Your task to perform on an android device: uninstall "Grab" Image 0: 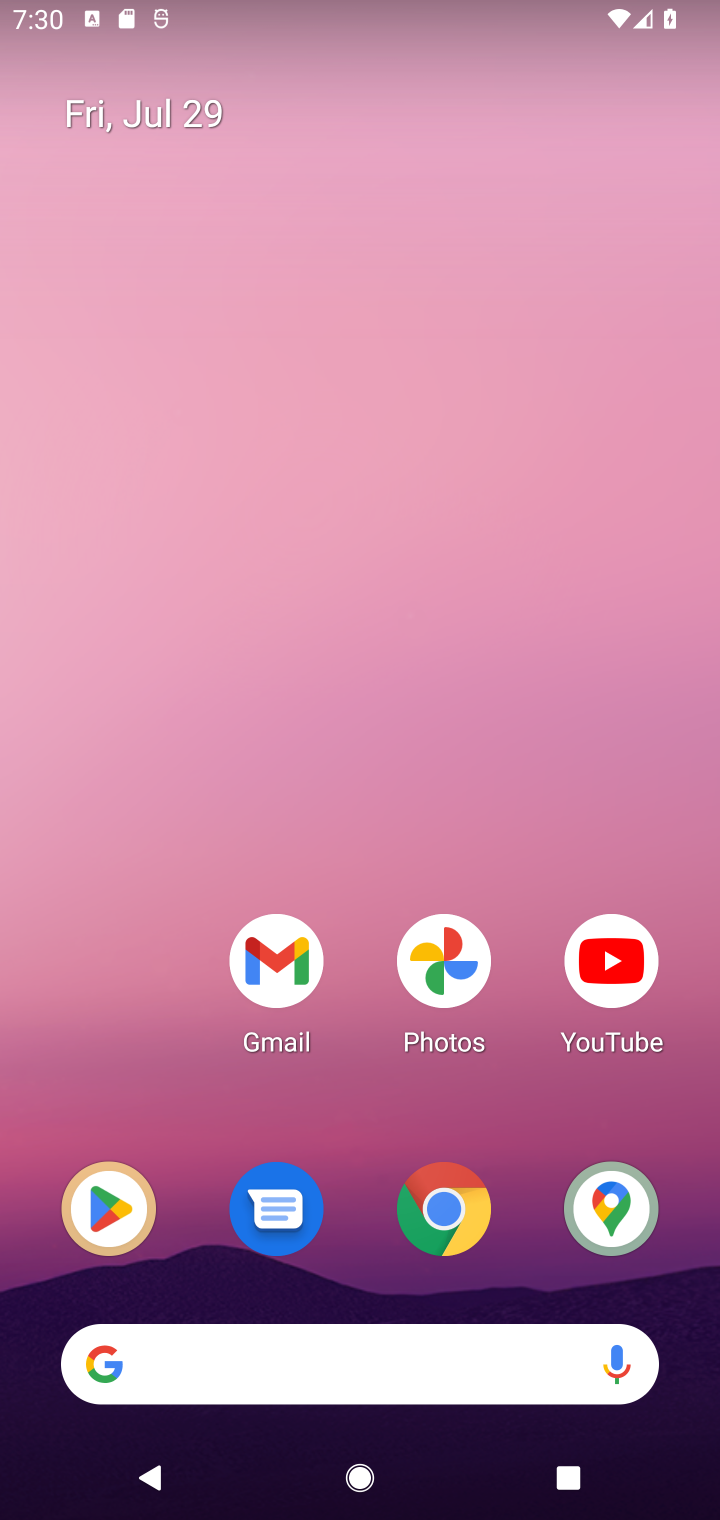
Step 0: click (109, 1227)
Your task to perform on an android device: uninstall "Grab" Image 1: 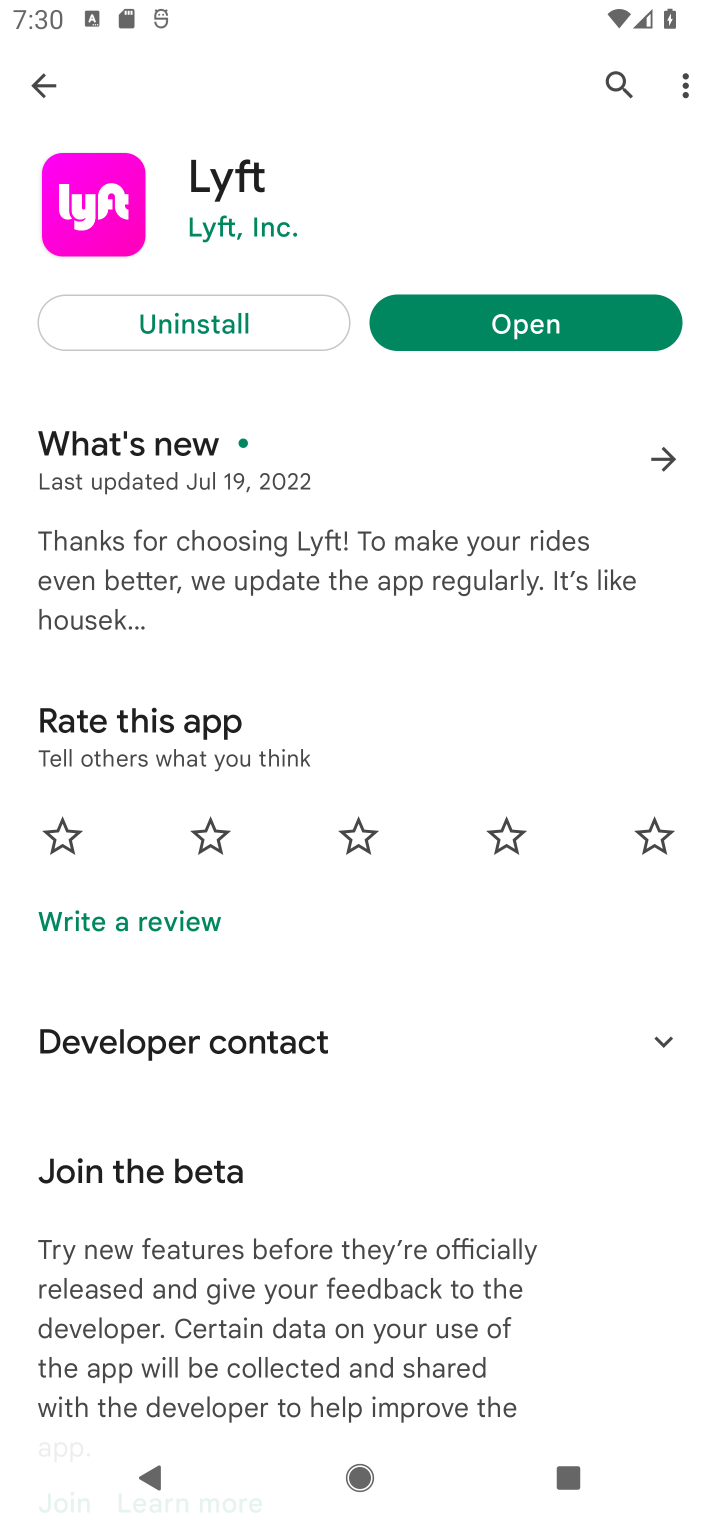
Step 1: click (625, 82)
Your task to perform on an android device: uninstall "Grab" Image 2: 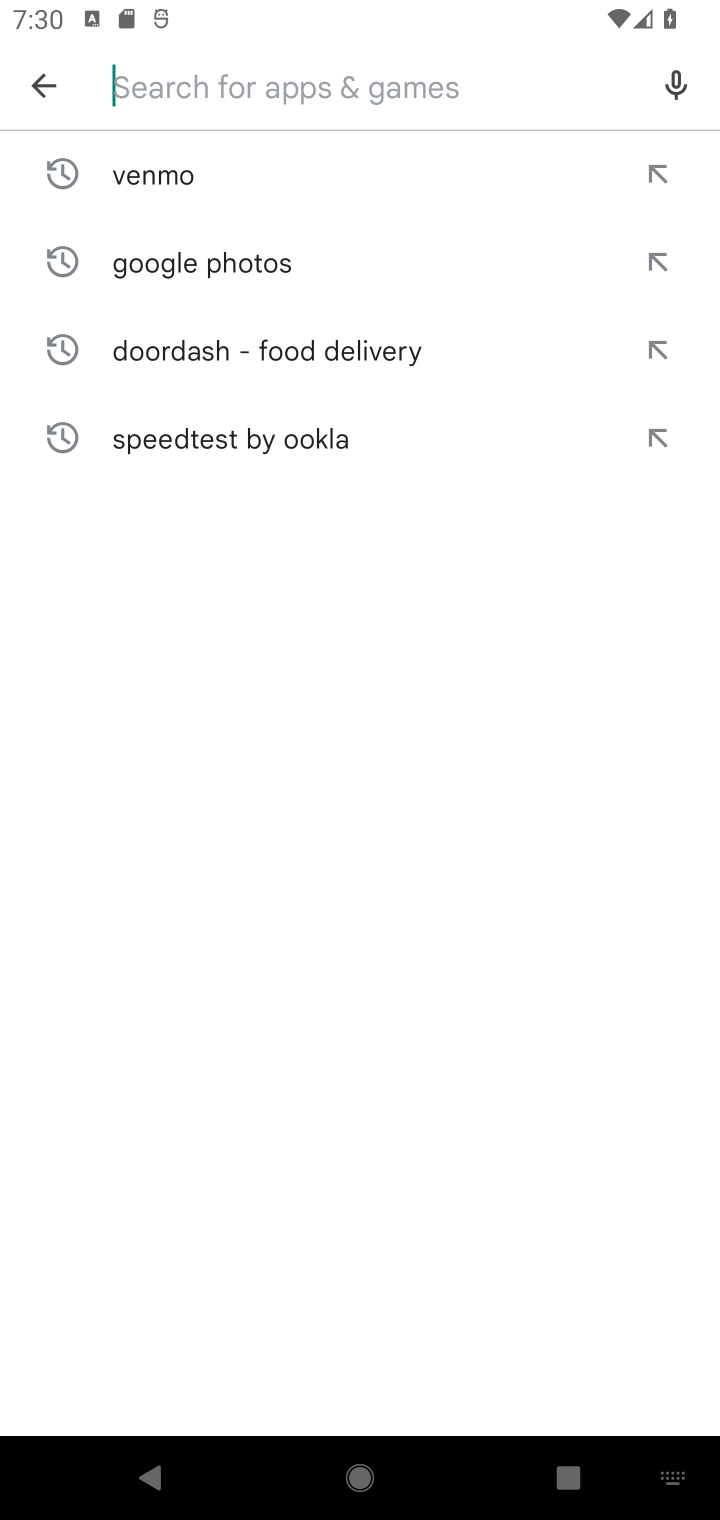
Step 2: type "Grab"
Your task to perform on an android device: uninstall "Grab" Image 3: 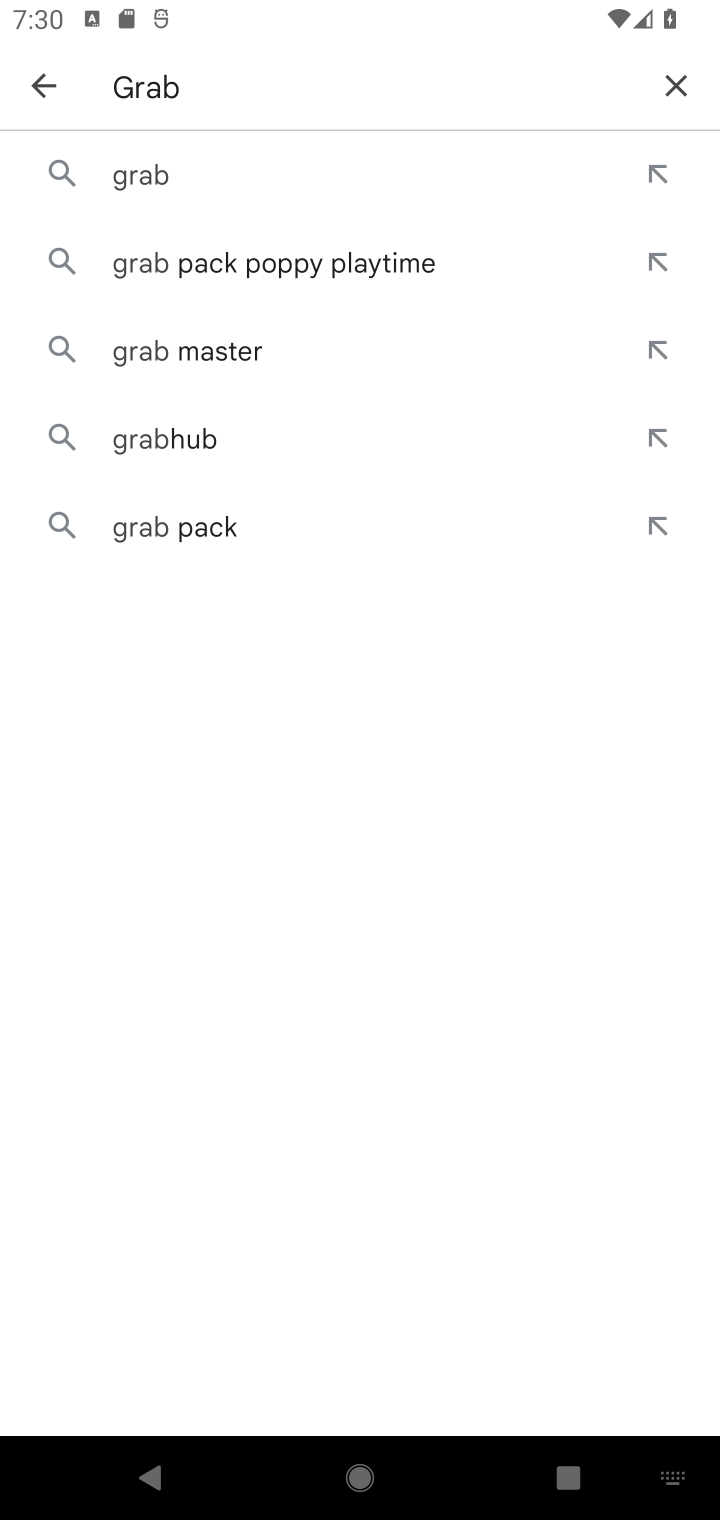
Step 3: click (142, 172)
Your task to perform on an android device: uninstall "Grab" Image 4: 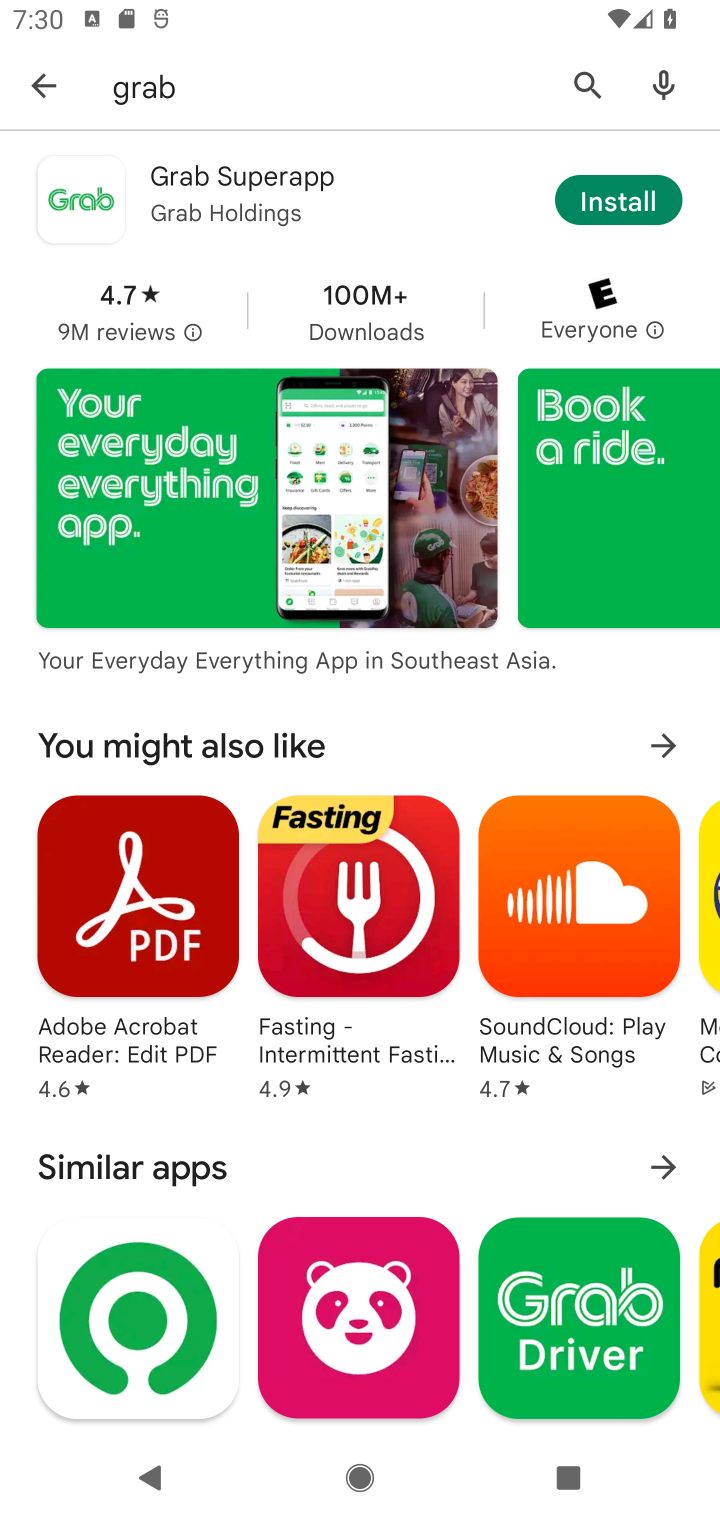
Step 4: task complete